Your task to perform on an android device: Add razer blade to the cart on bestbuy.com, then select checkout. Image 0: 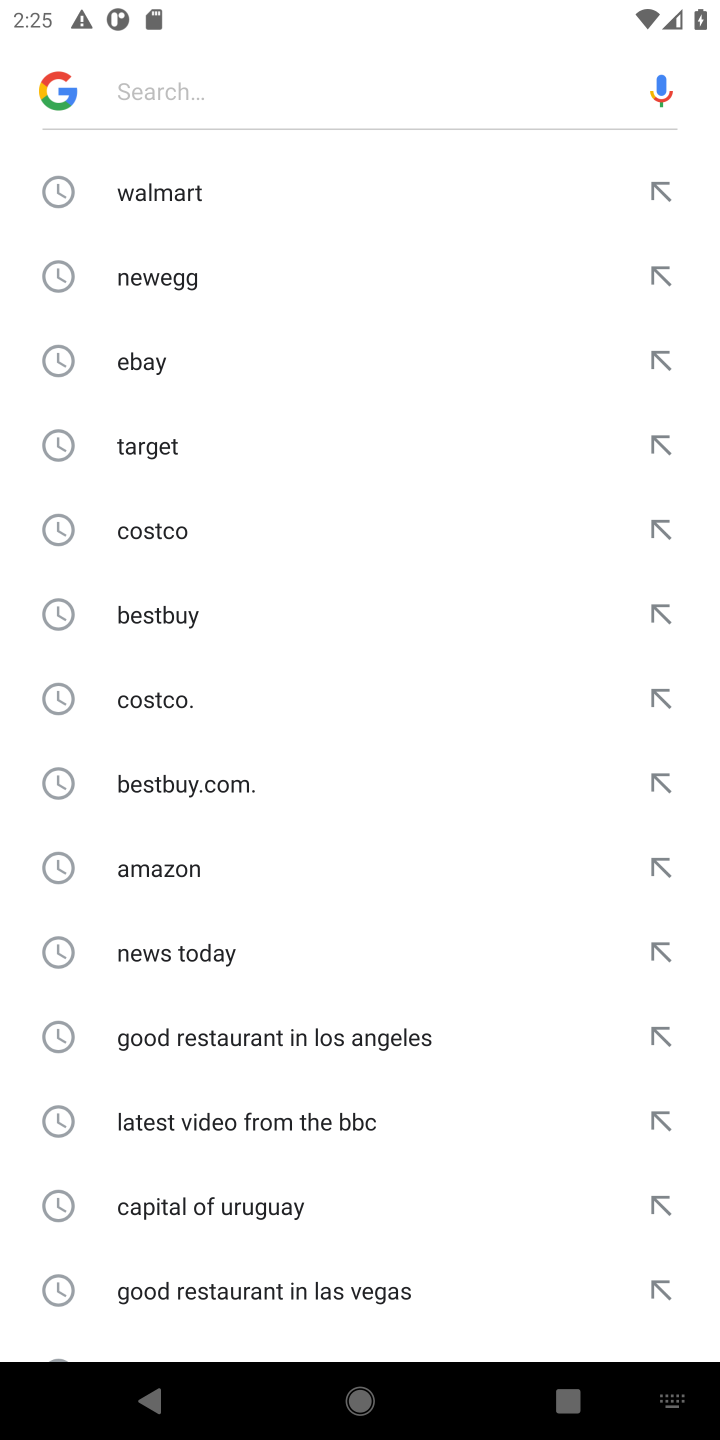
Step 0: press home button
Your task to perform on an android device: Add razer blade to the cart on bestbuy.com, then select checkout. Image 1: 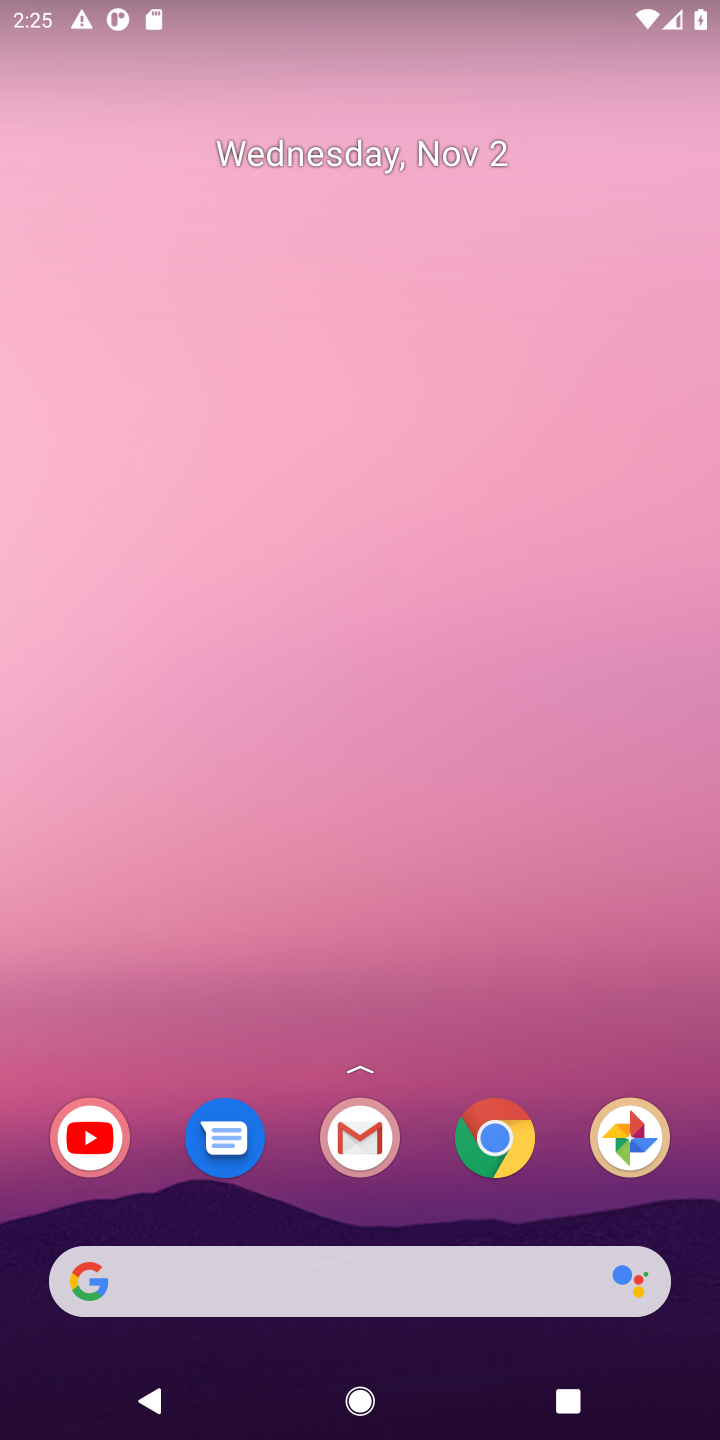
Step 1: click (187, 1293)
Your task to perform on an android device: Add razer blade to the cart on bestbuy.com, then select checkout. Image 2: 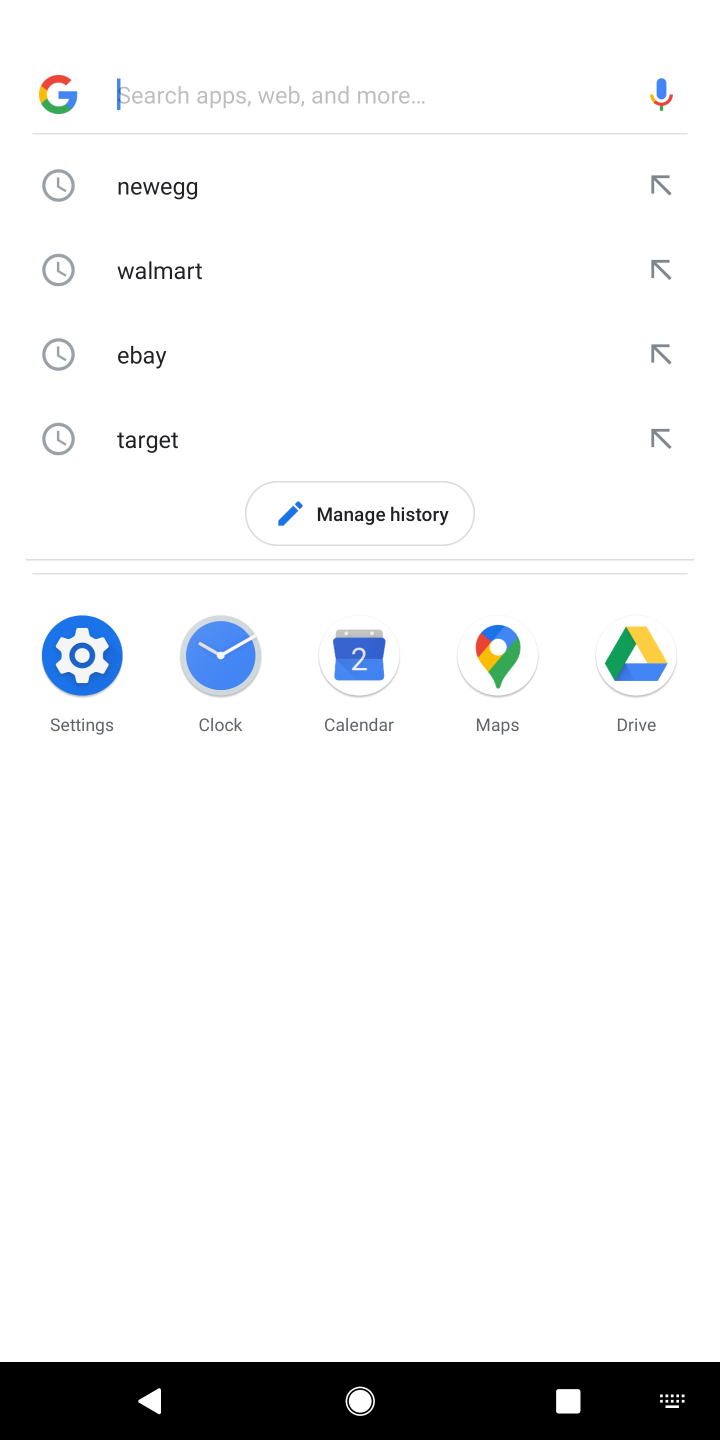
Step 2: type " bestbuy.com"
Your task to perform on an android device: Add razer blade to the cart on bestbuy.com, then select checkout. Image 3: 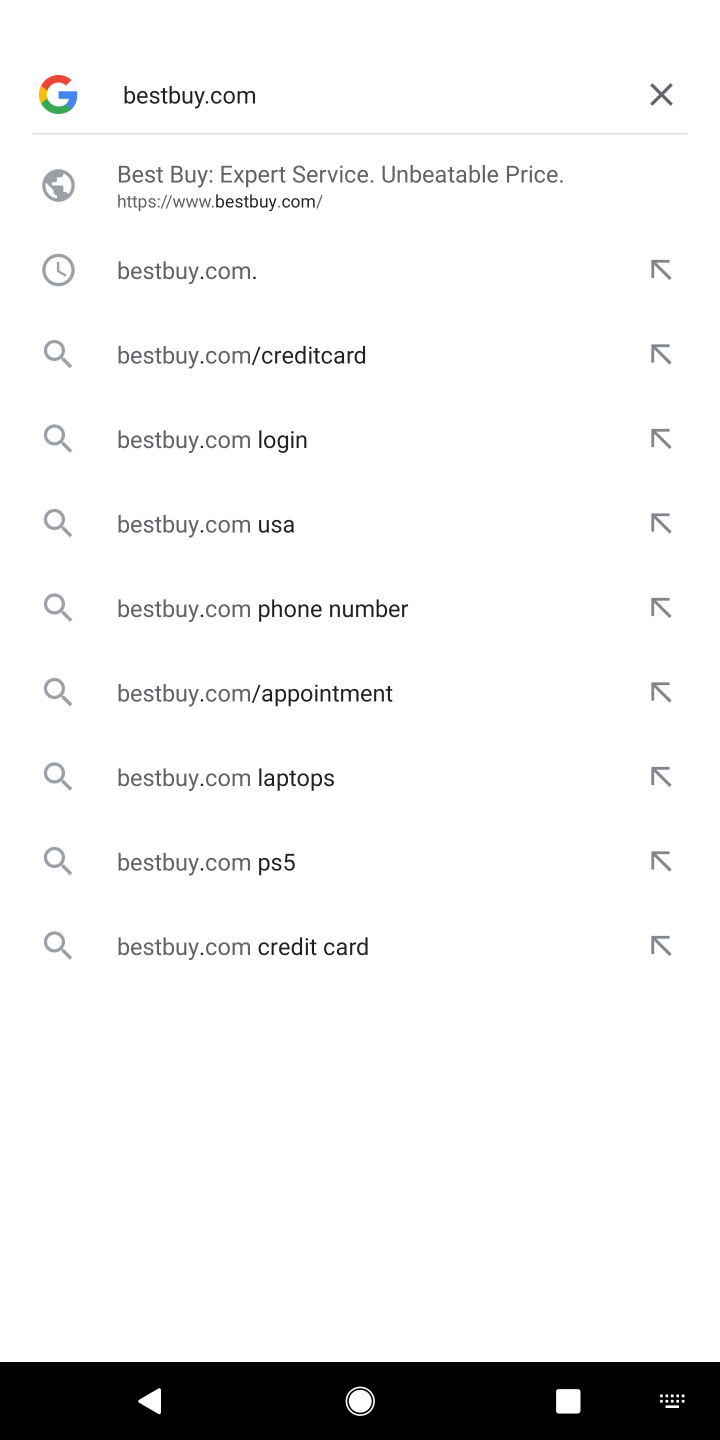
Step 3: press enter
Your task to perform on an android device: Add razer blade to the cart on bestbuy.com, then select checkout. Image 4: 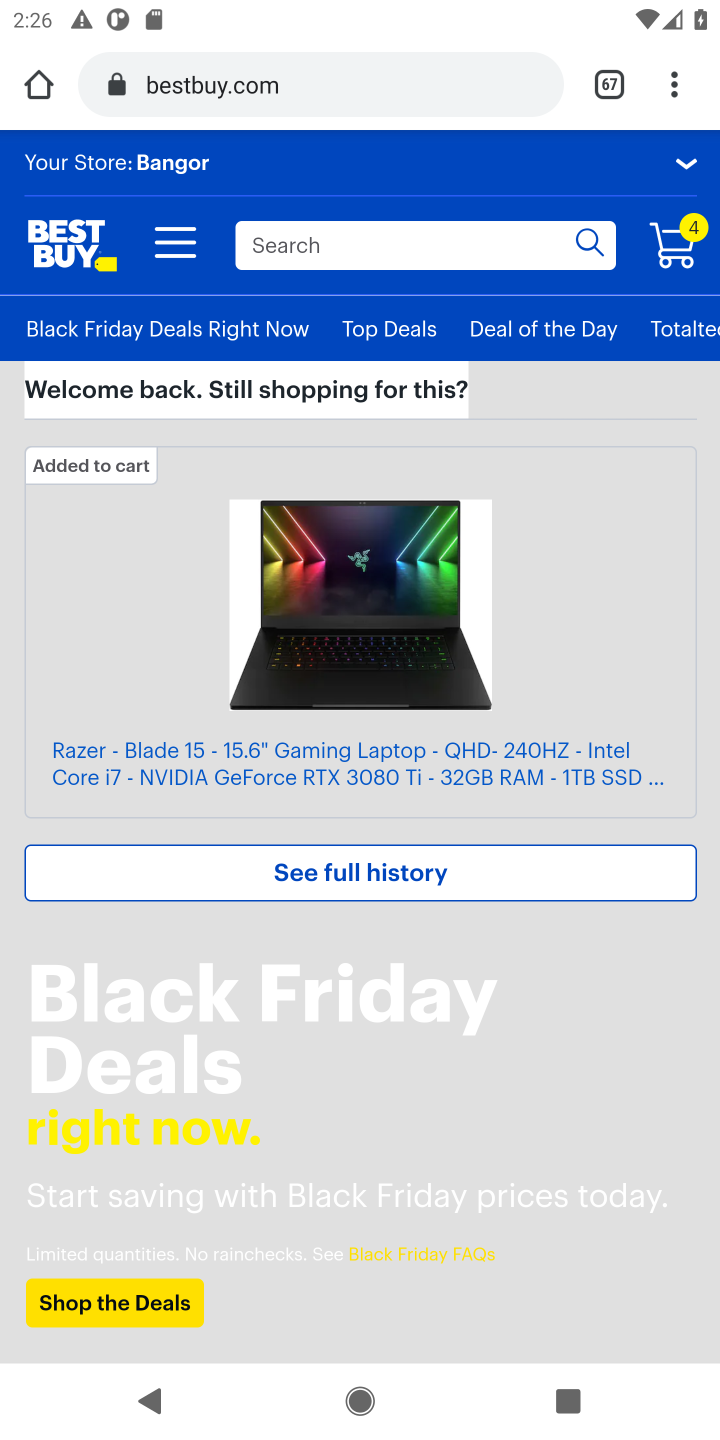
Step 4: click (360, 242)
Your task to perform on an android device: Add razer blade to the cart on bestbuy.com, then select checkout. Image 5: 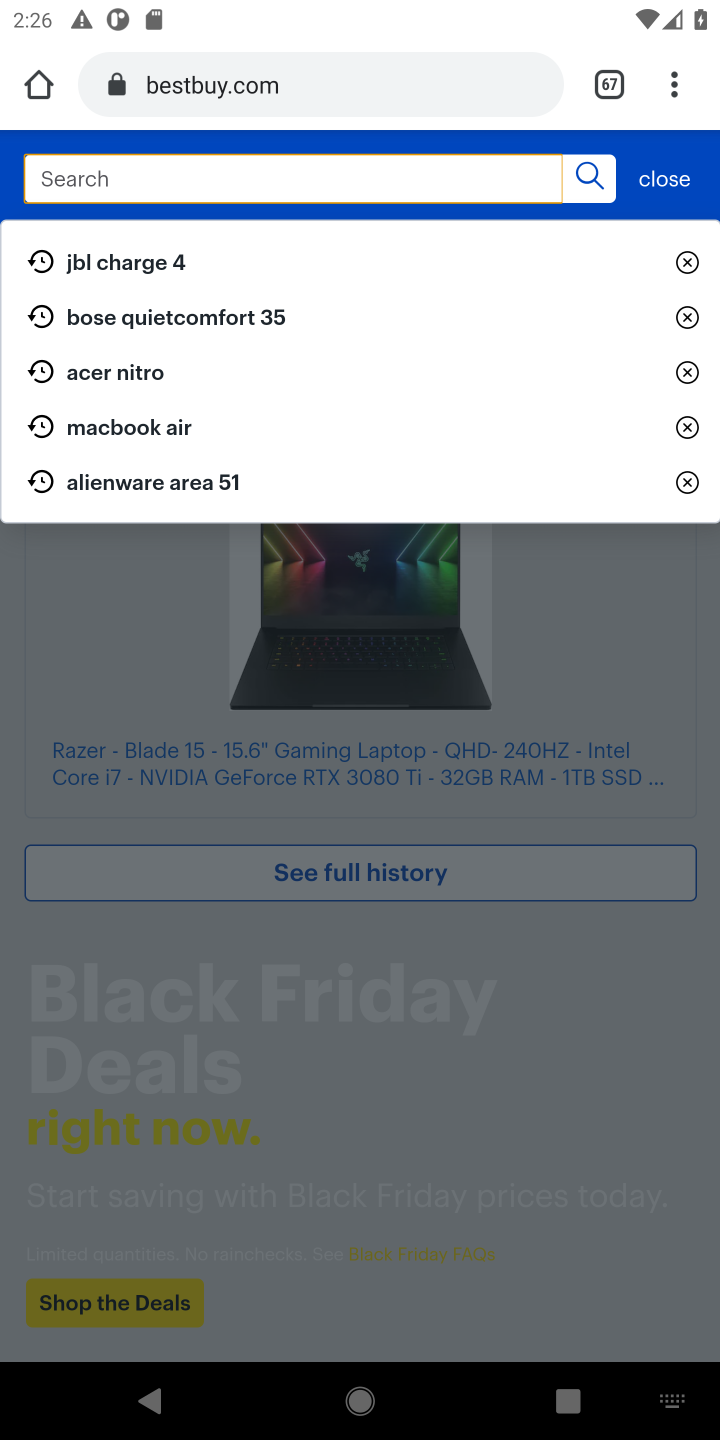
Step 5: press enter
Your task to perform on an android device: Add razer blade to the cart on bestbuy.com, then select checkout. Image 6: 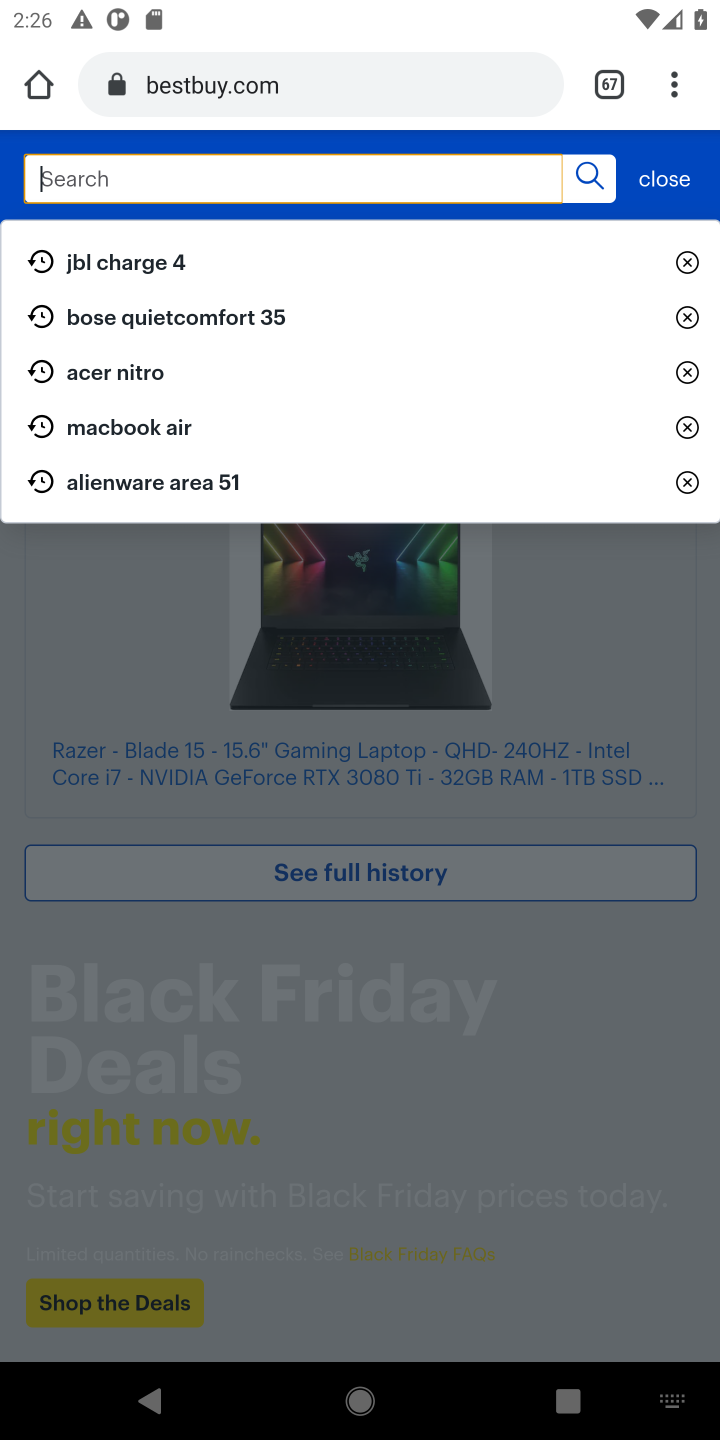
Step 6: type " razer blade"
Your task to perform on an android device: Add razer blade to the cart on bestbuy.com, then select checkout. Image 7: 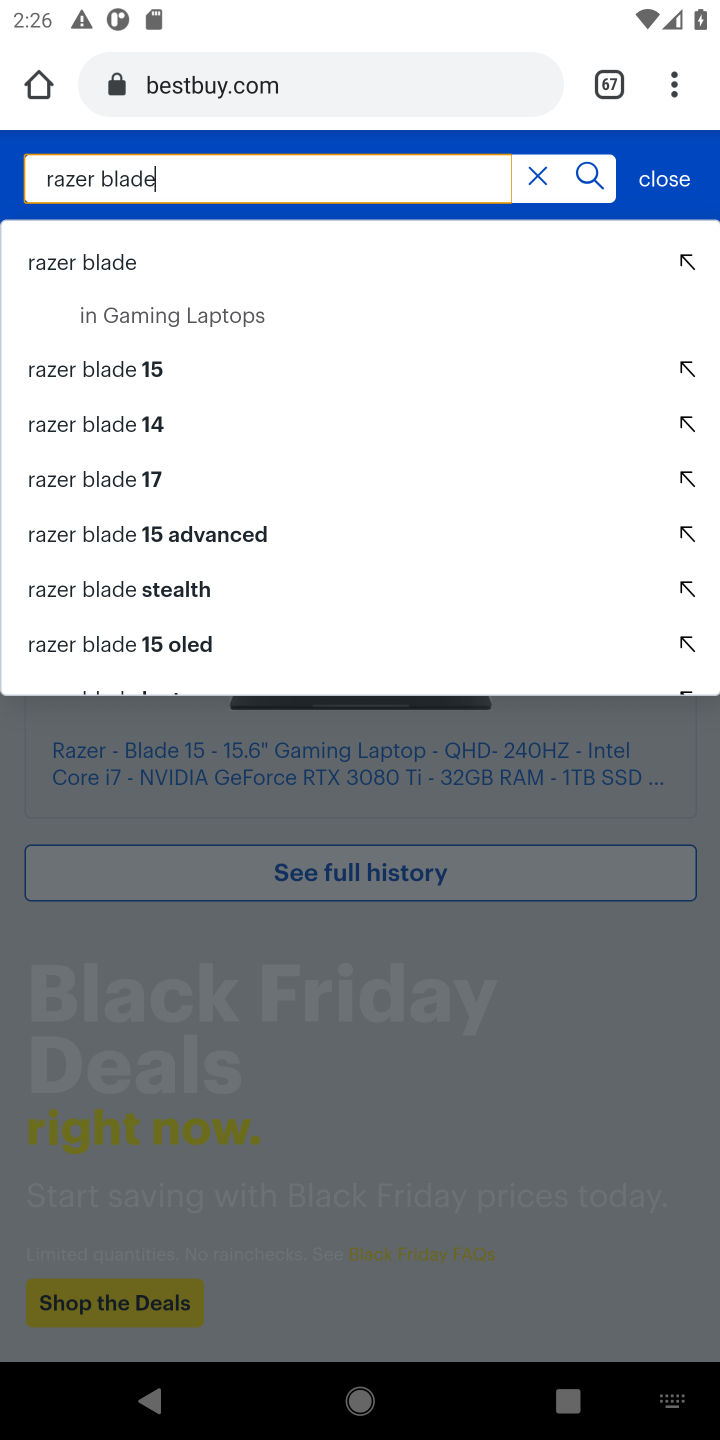
Step 7: press enter
Your task to perform on an android device: Add razer blade to the cart on bestbuy.com, then select checkout. Image 8: 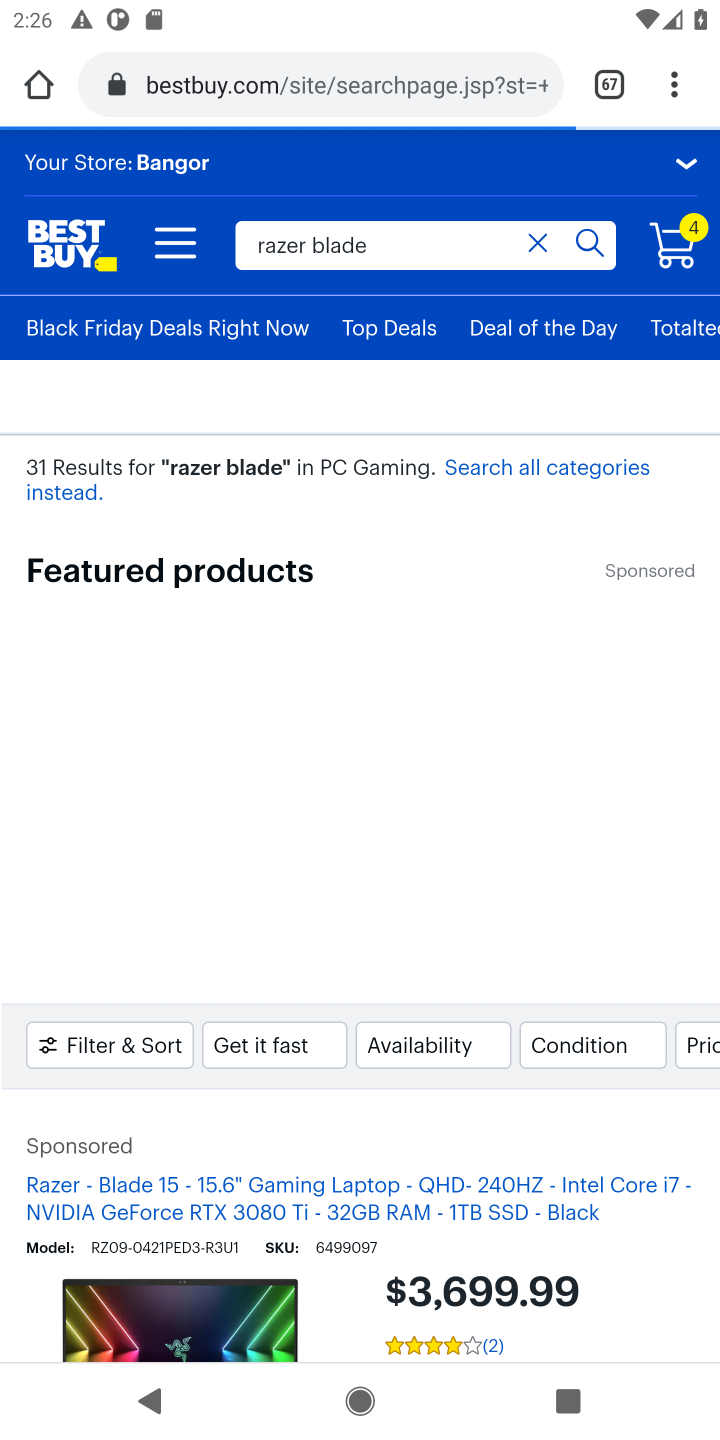
Step 8: drag from (510, 1153) to (507, 594)
Your task to perform on an android device: Add razer blade to the cart on bestbuy.com, then select checkout. Image 9: 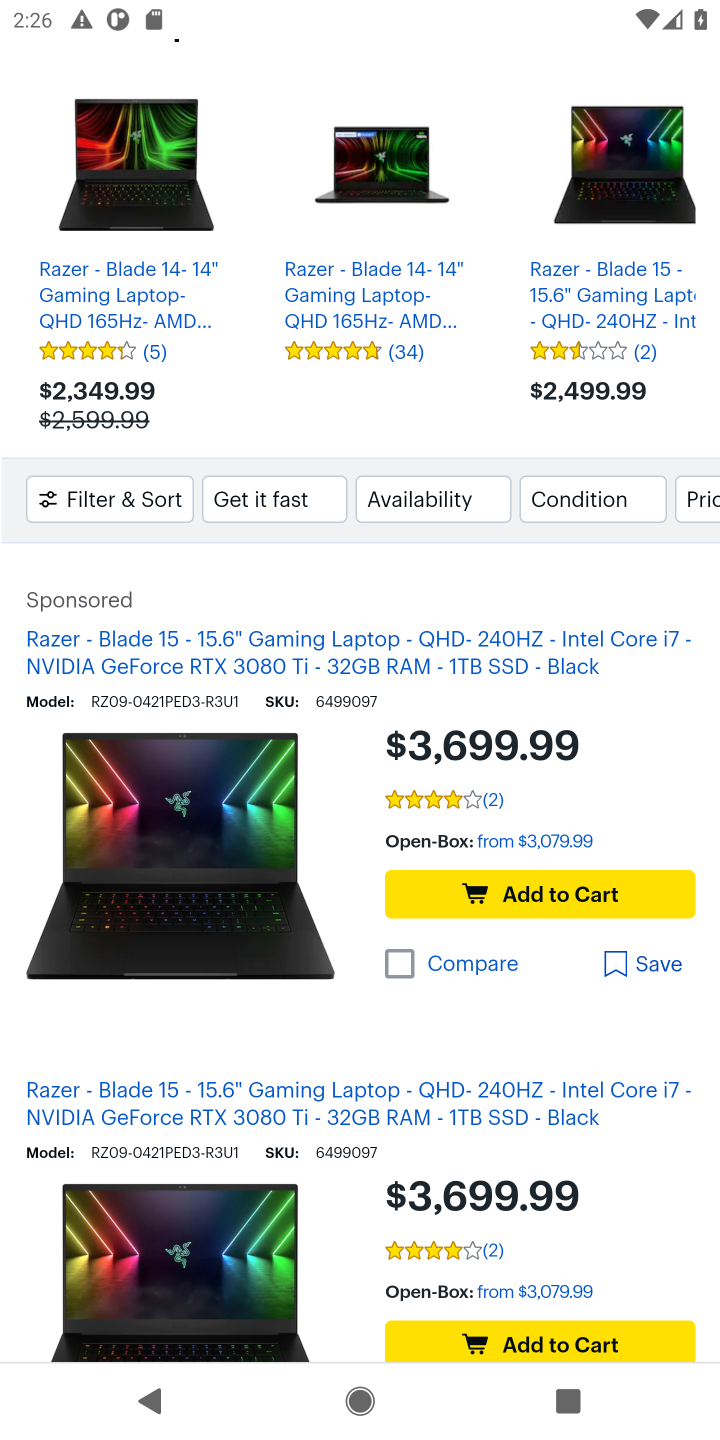
Step 9: drag from (494, 1020) to (508, 644)
Your task to perform on an android device: Add razer blade to the cart on bestbuy.com, then select checkout. Image 10: 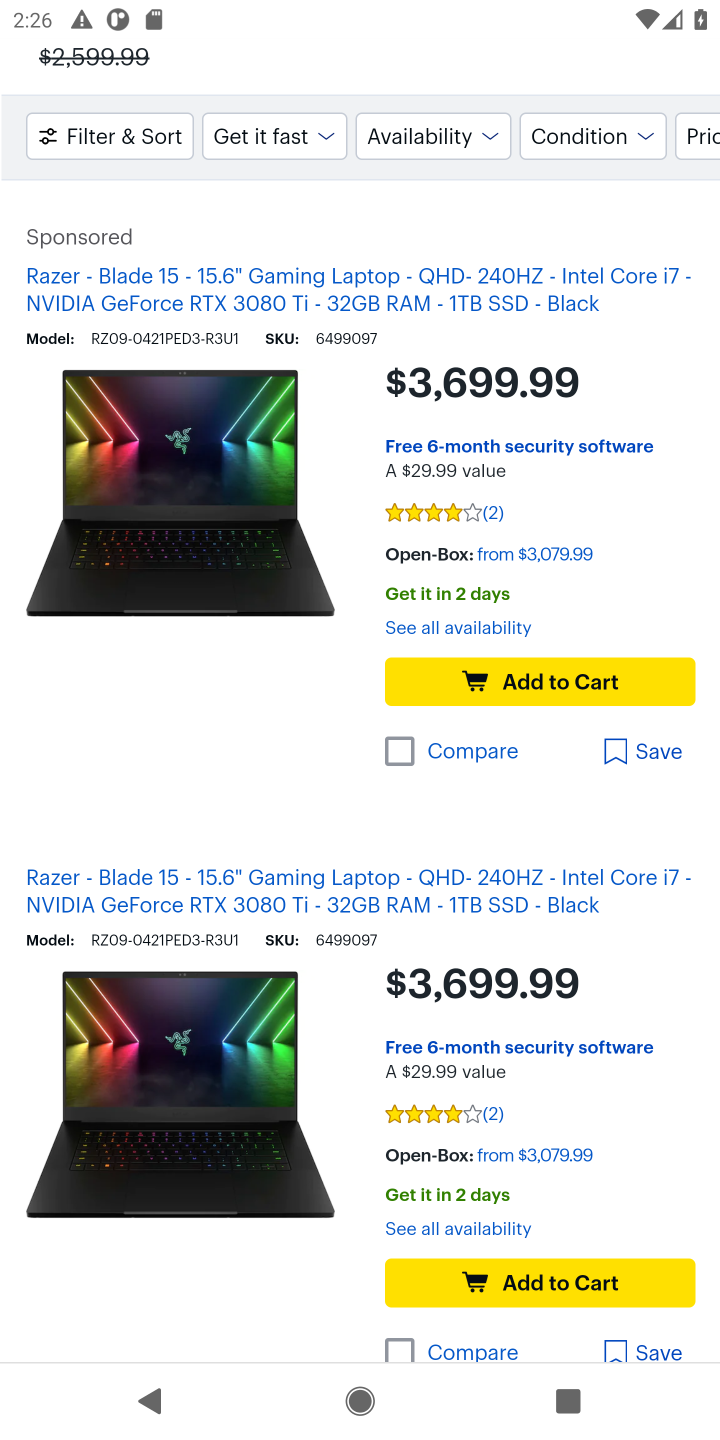
Step 10: click (544, 677)
Your task to perform on an android device: Add razer blade to the cart on bestbuy.com, then select checkout. Image 11: 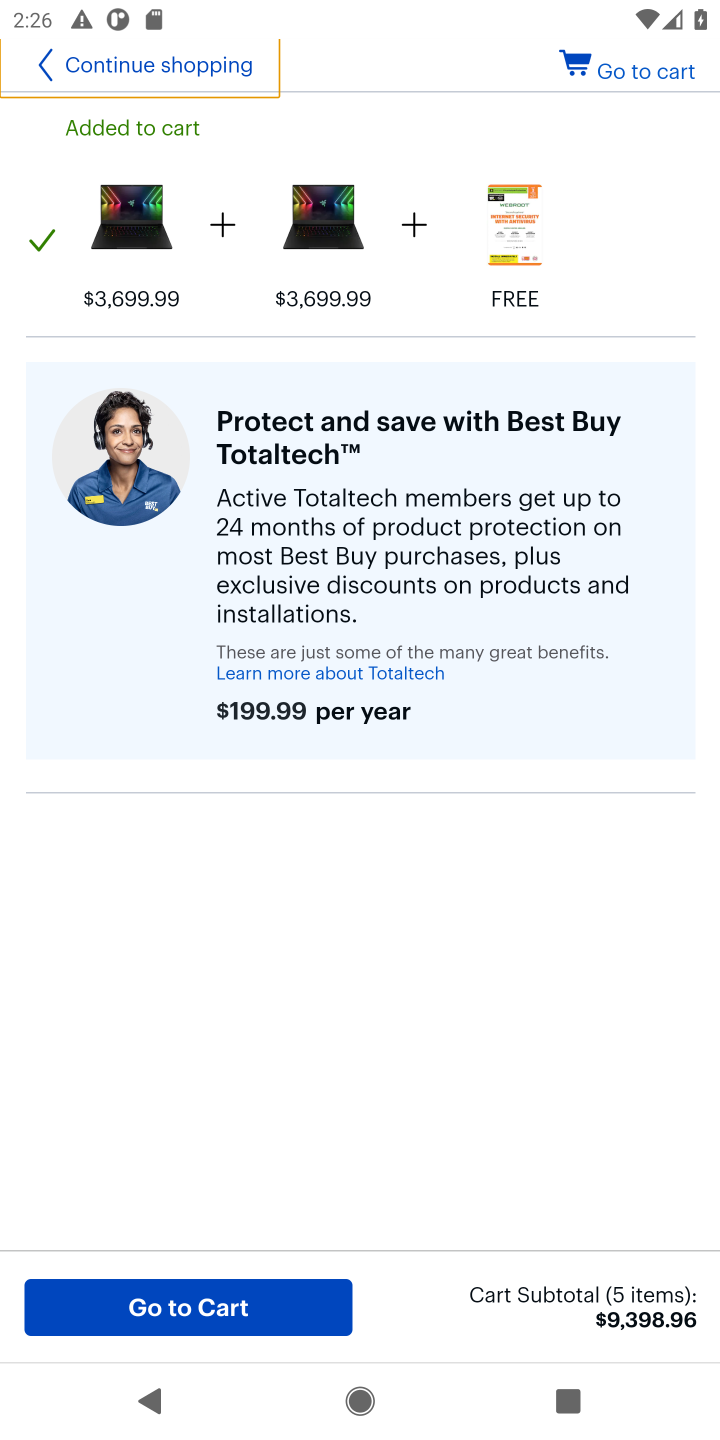
Step 11: click (216, 1314)
Your task to perform on an android device: Add razer blade to the cart on bestbuy.com, then select checkout. Image 12: 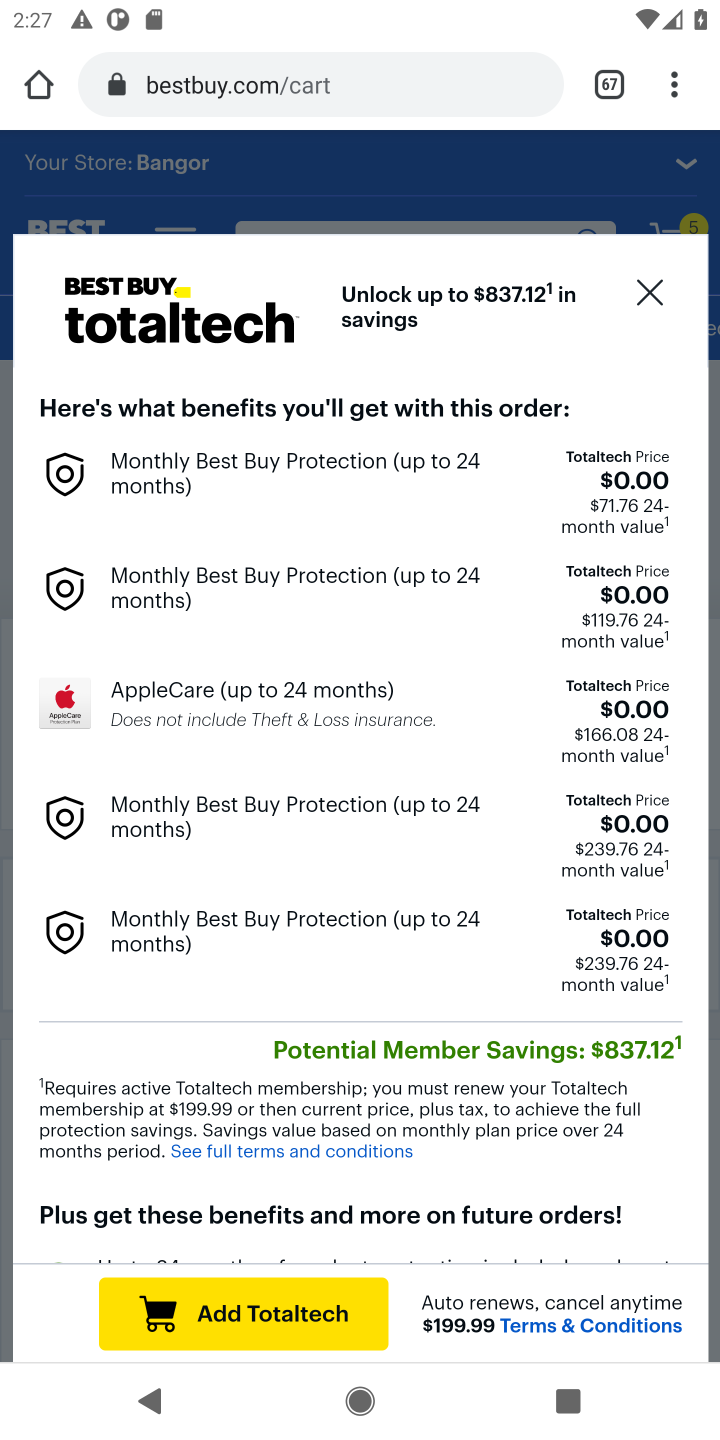
Step 12: click (651, 287)
Your task to perform on an android device: Add razer blade to the cart on bestbuy.com, then select checkout. Image 13: 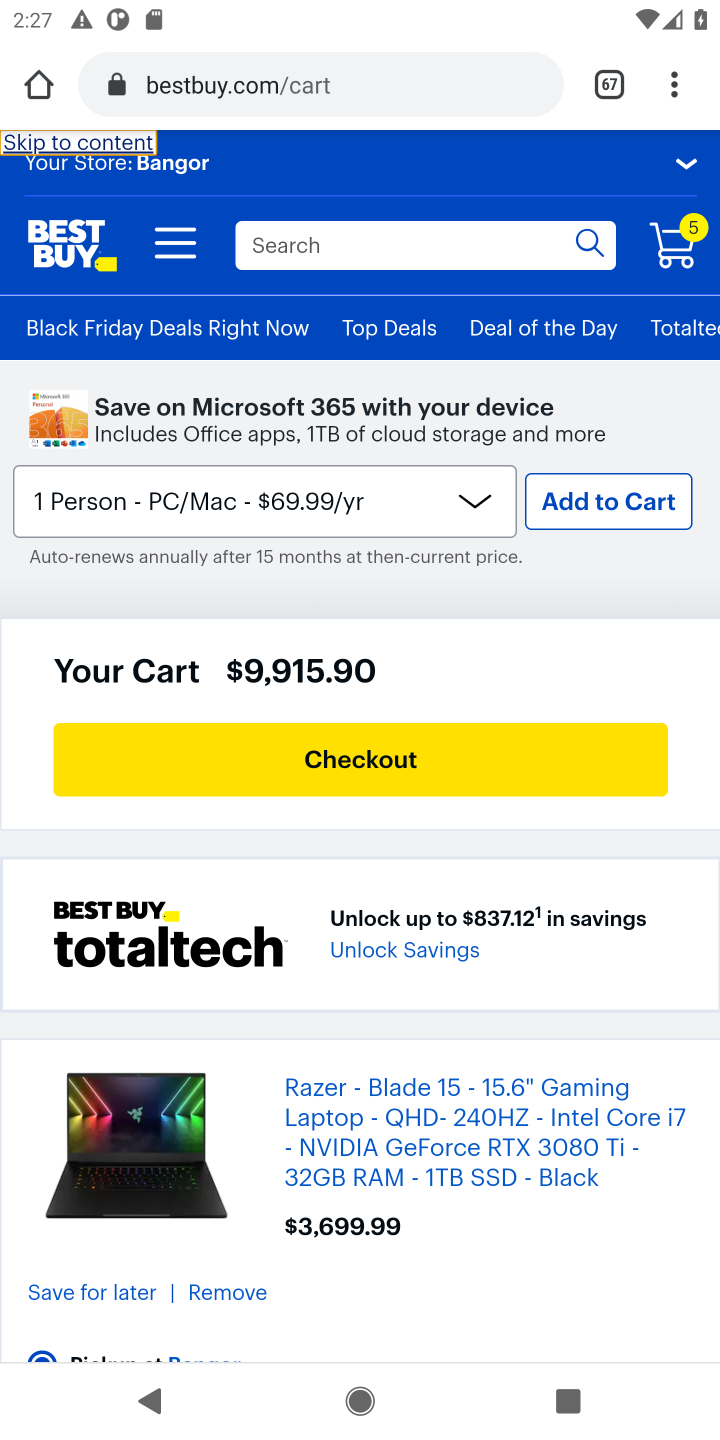
Step 13: click (415, 753)
Your task to perform on an android device: Add razer blade to the cart on bestbuy.com, then select checkout. Image 14: 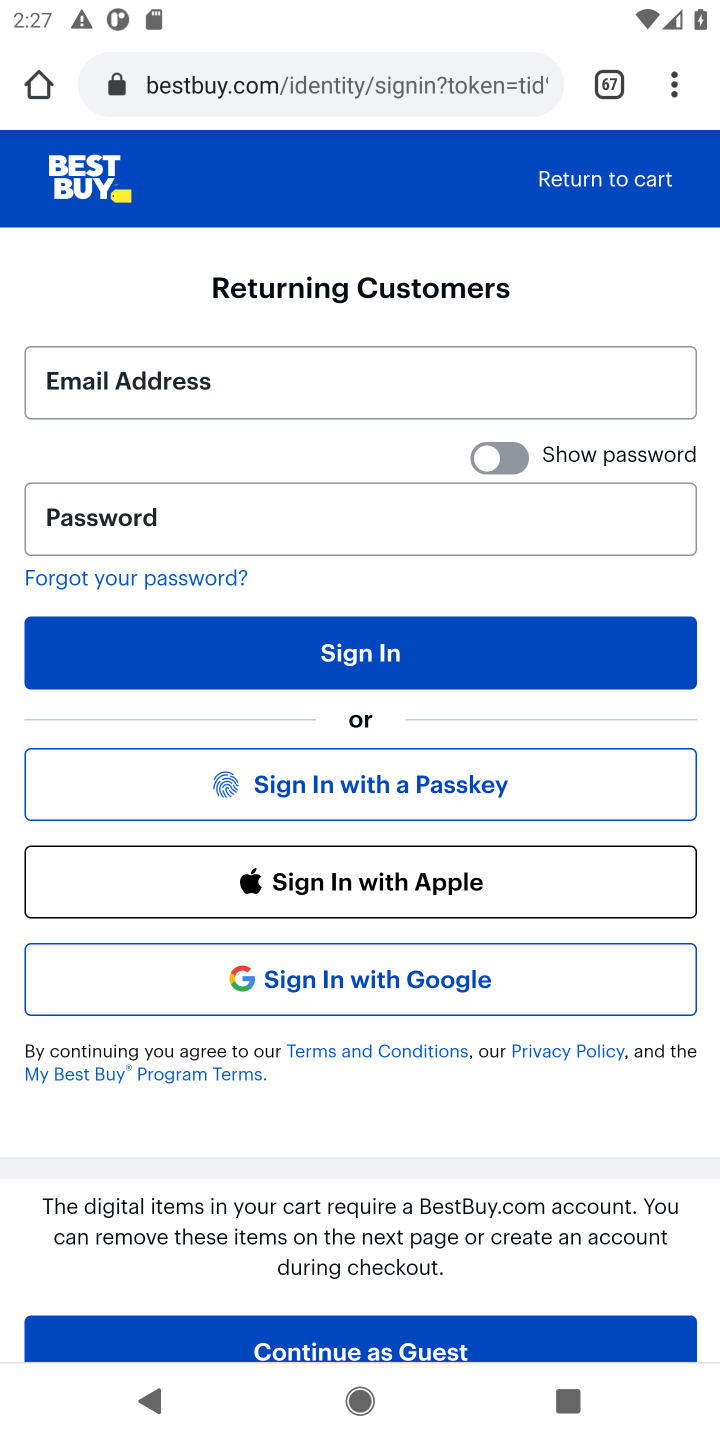
Step 14: task complete